Your task to perform on an android device: Empty the shopping cart on amazon. Add "razer blade" to the cart on amazon, then select checkout. Image 0: 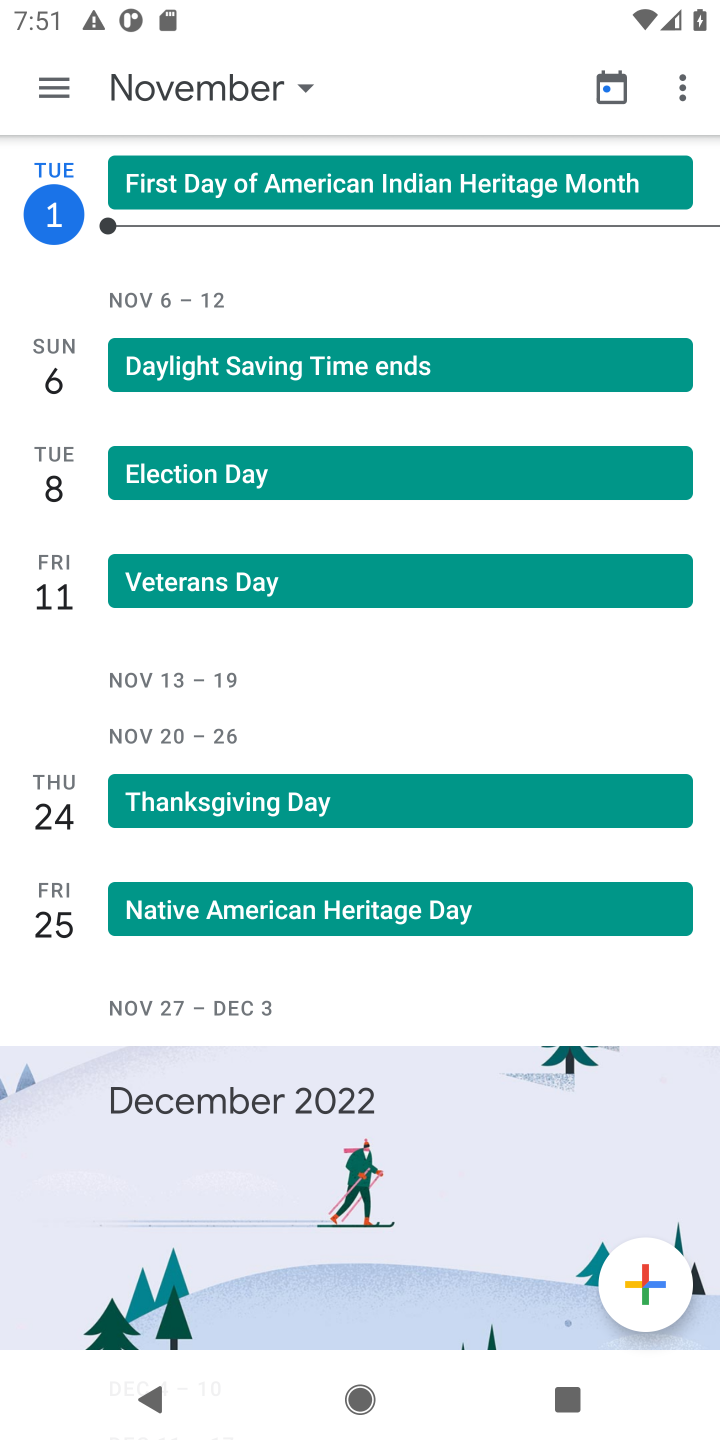
Step 0: press home button
Your task to perform on an android device: Empty the shopping cart on amazon. Add "razer blade" to the cart on amazon, then select checkout. Image 1: 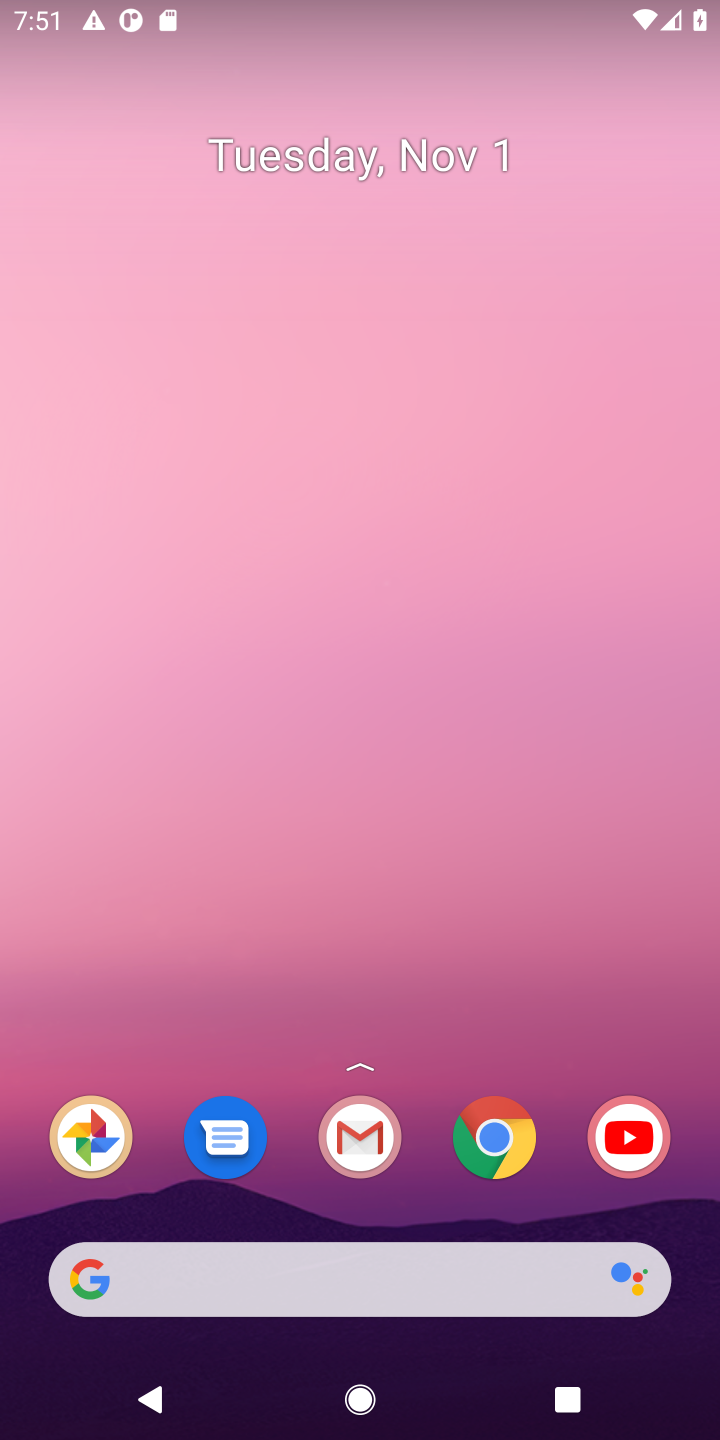
Step 1: click (492, 1113)
Your task to perform on an android device: Empty the shopping cart on amazon. Add "razer blade" to the cart on amazon, then select checkout. Image 2: 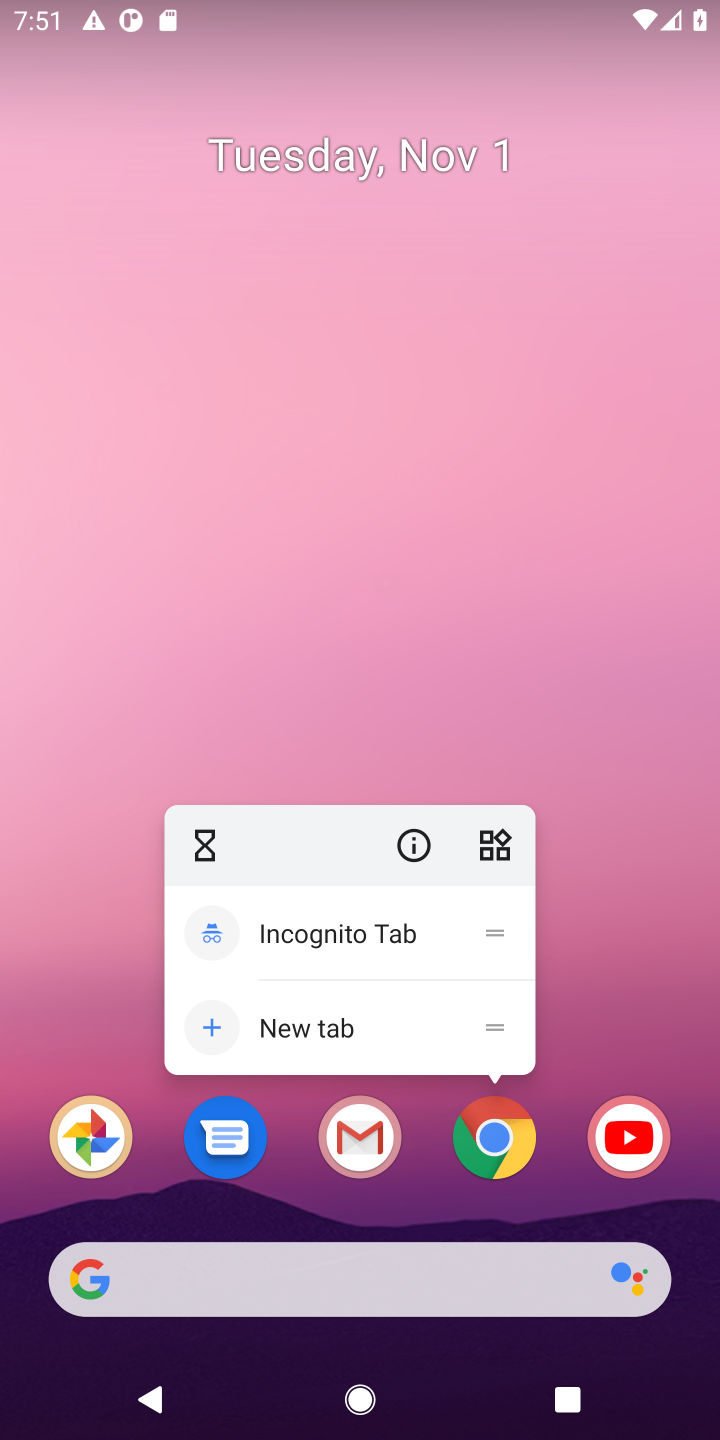
Step 2: click (492, 1113)
Your task to perform on an android device: Empty the shopping cart on amazon. Add "razer blade" to the cart on amazon, then select checkout. Image 3: 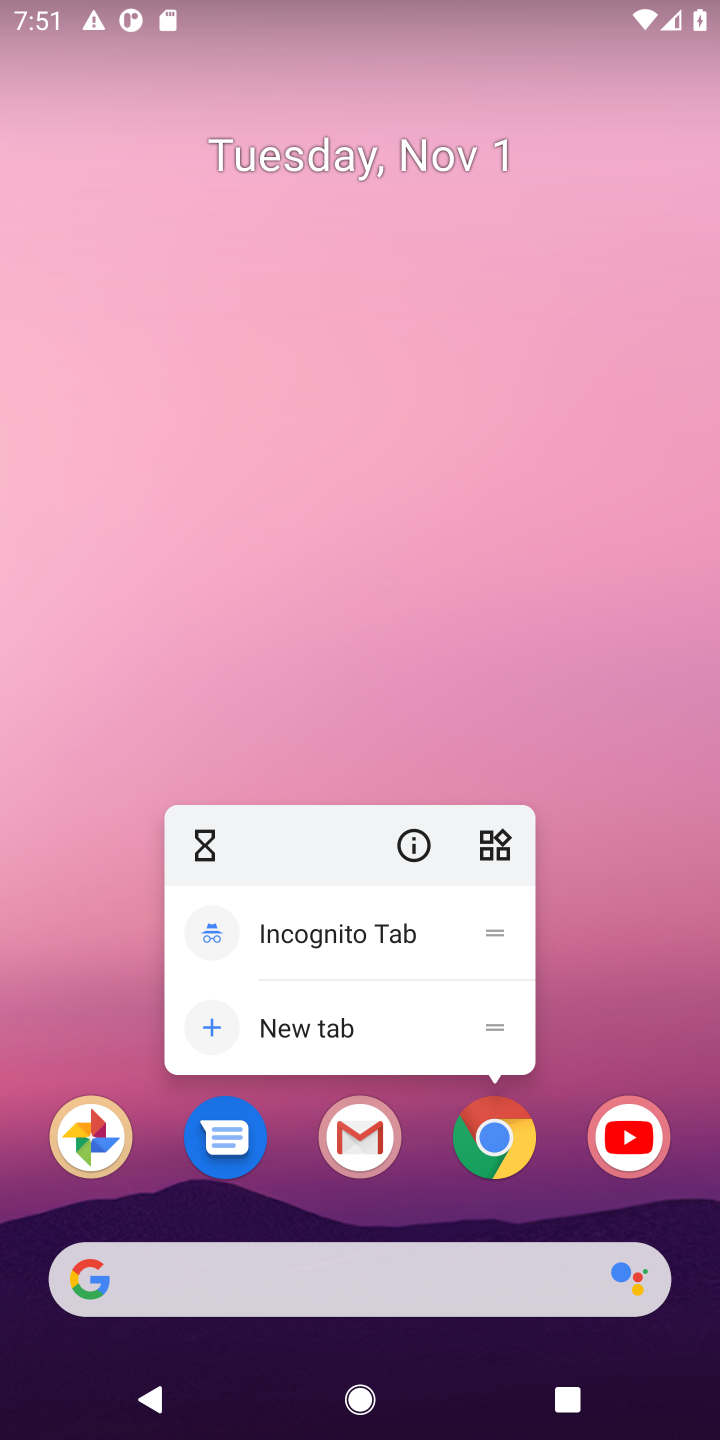
Step 3: click (492, 1113)
Your task to perform on an android device: Empty the shopping cart on amazon. Add "razer blade" to the cart on amazon, then select checkout. Image 4: 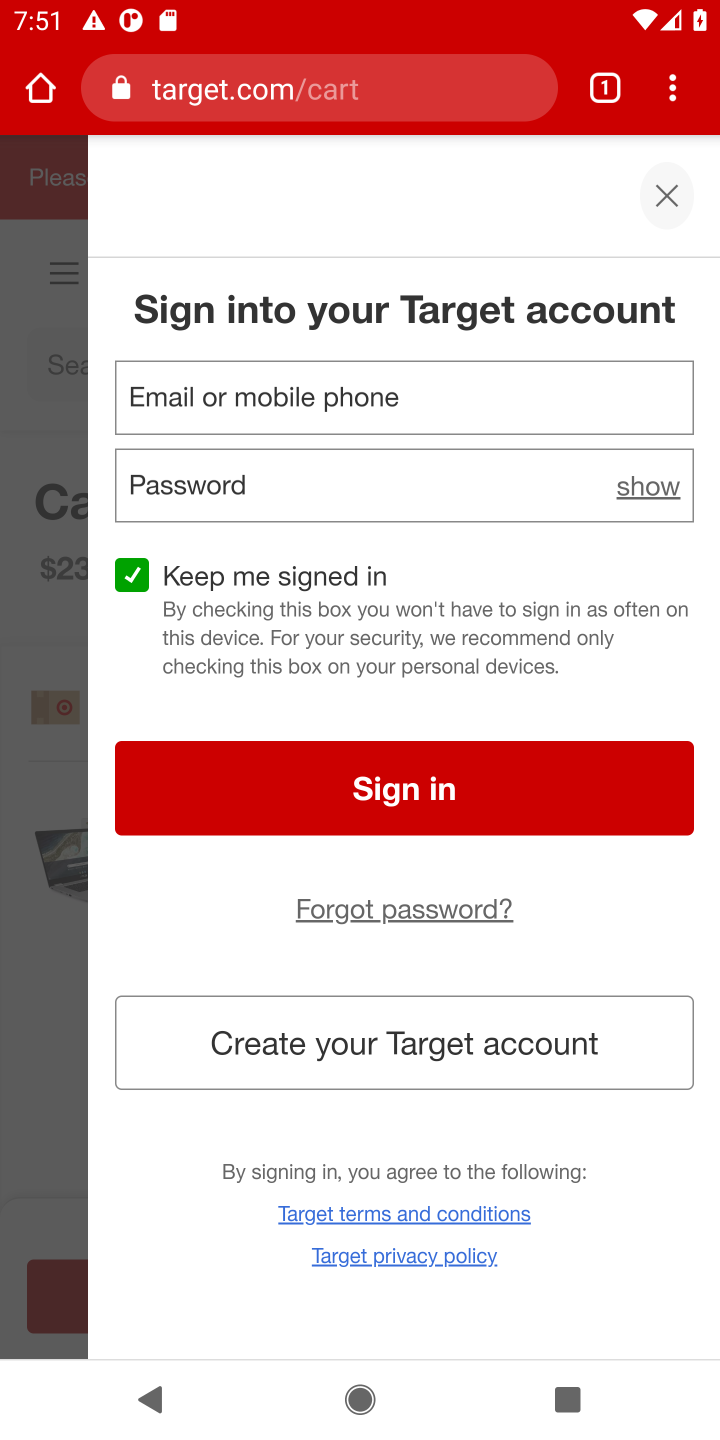
Step 4: click (378, 78)
Your task to perform on an android device: Empty the shopping cart on amazon. Add "razer blade" to the cart on amazon, then select checkout. Image 5: 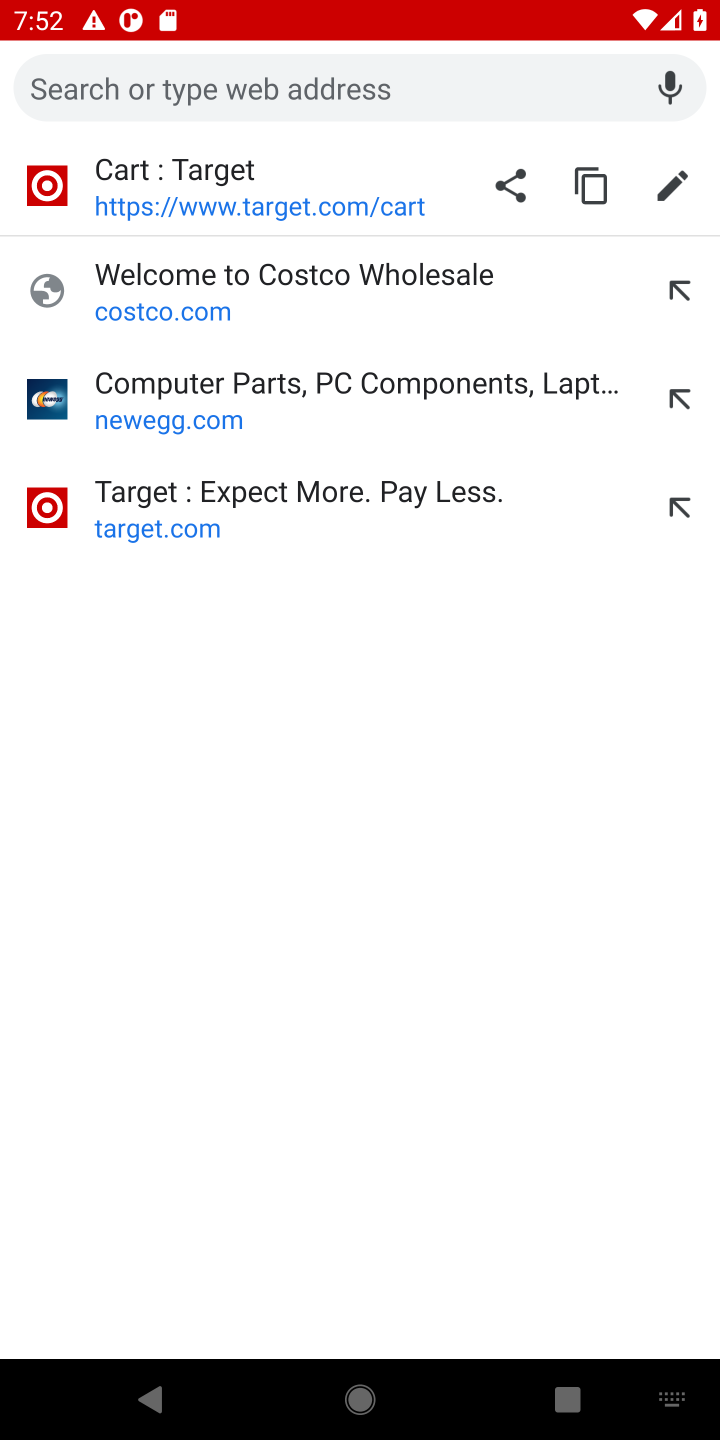
Step 5: type "amazon"
Your task to perform on an android device: Empty the shopping cart on amazon. Add "razer blade" to the cart on amazon, then select checkout. Image 6: 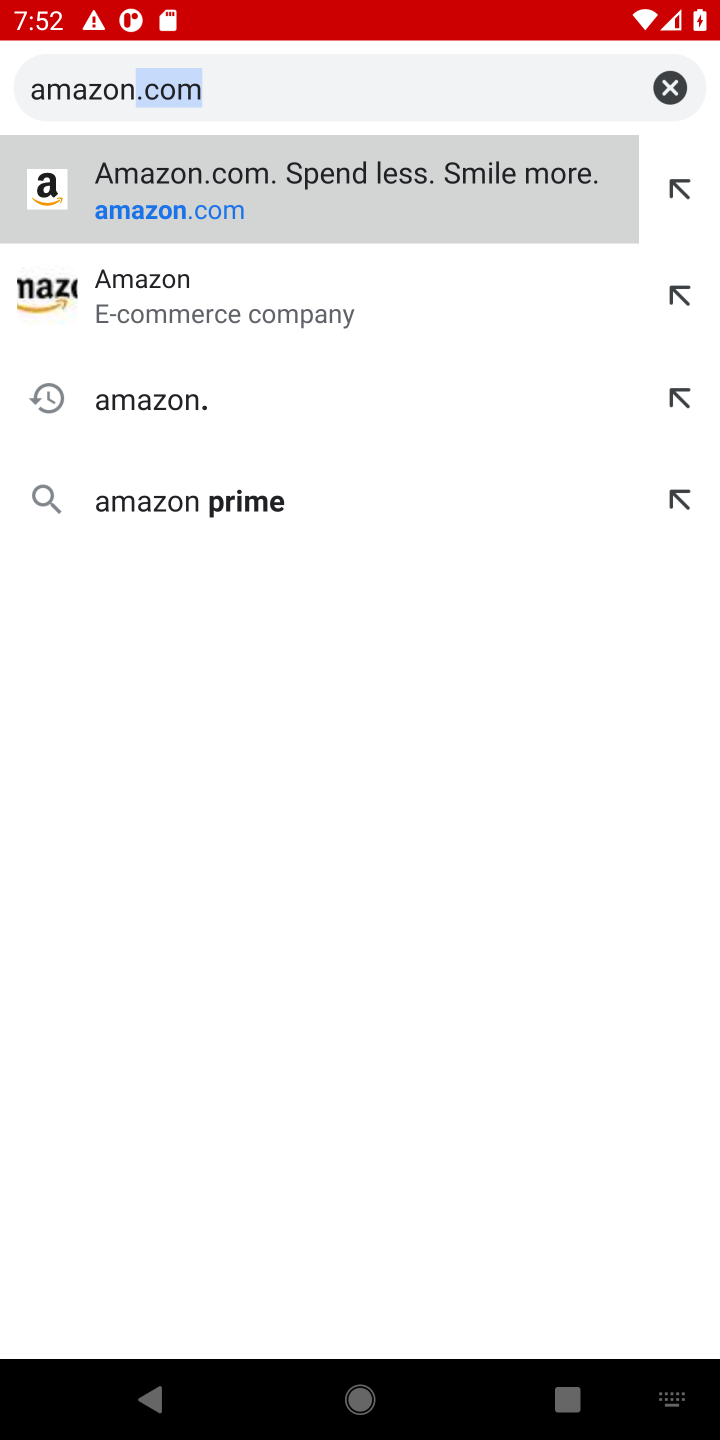
Step 6: click (445, 172)
Your task to perform on an android device: Empty the shopping cart on amazon. Add "razer blade" to the cart on amazon, then select checkout. Image 7: 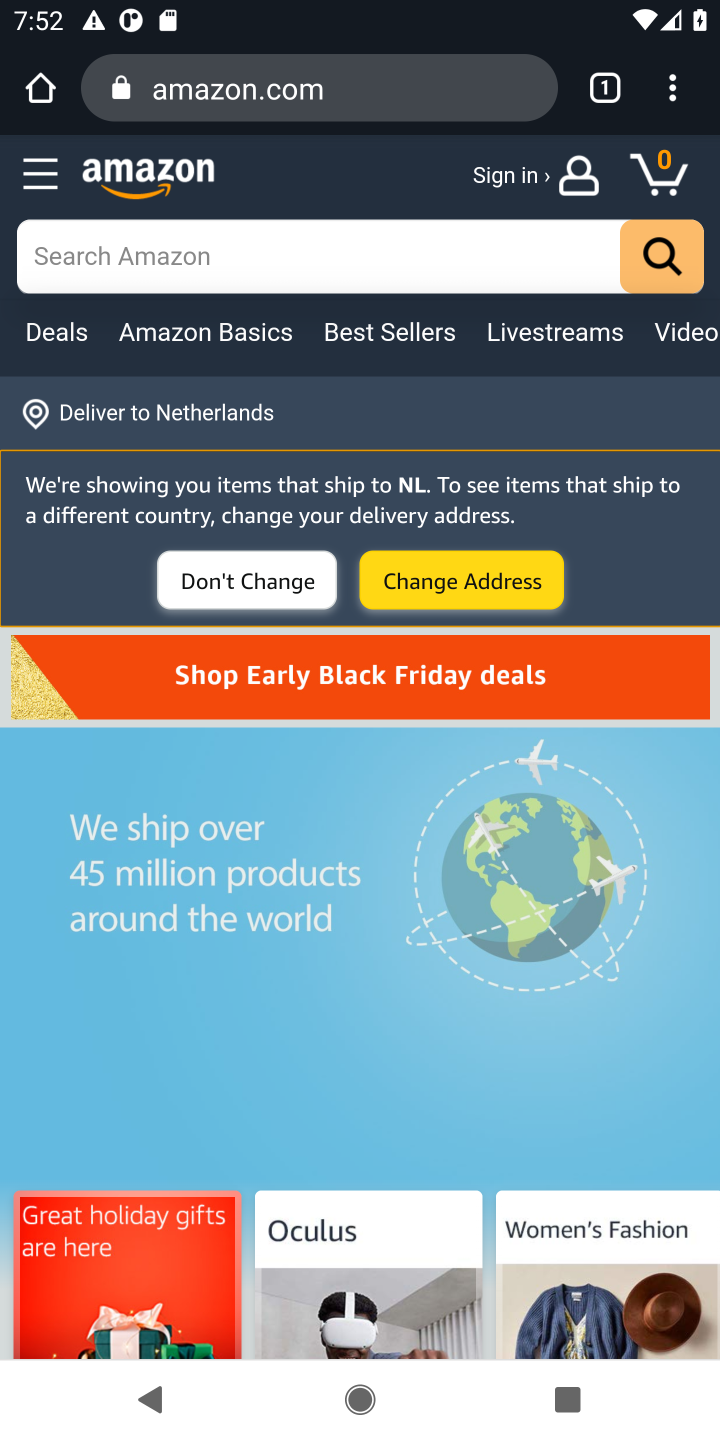
Step 7: click (391, 271)
Your task to perform on an android device: Empty the shopping cart on amazon. Add "razer blade" to the cart on amazon, then select checkout. Image 8: 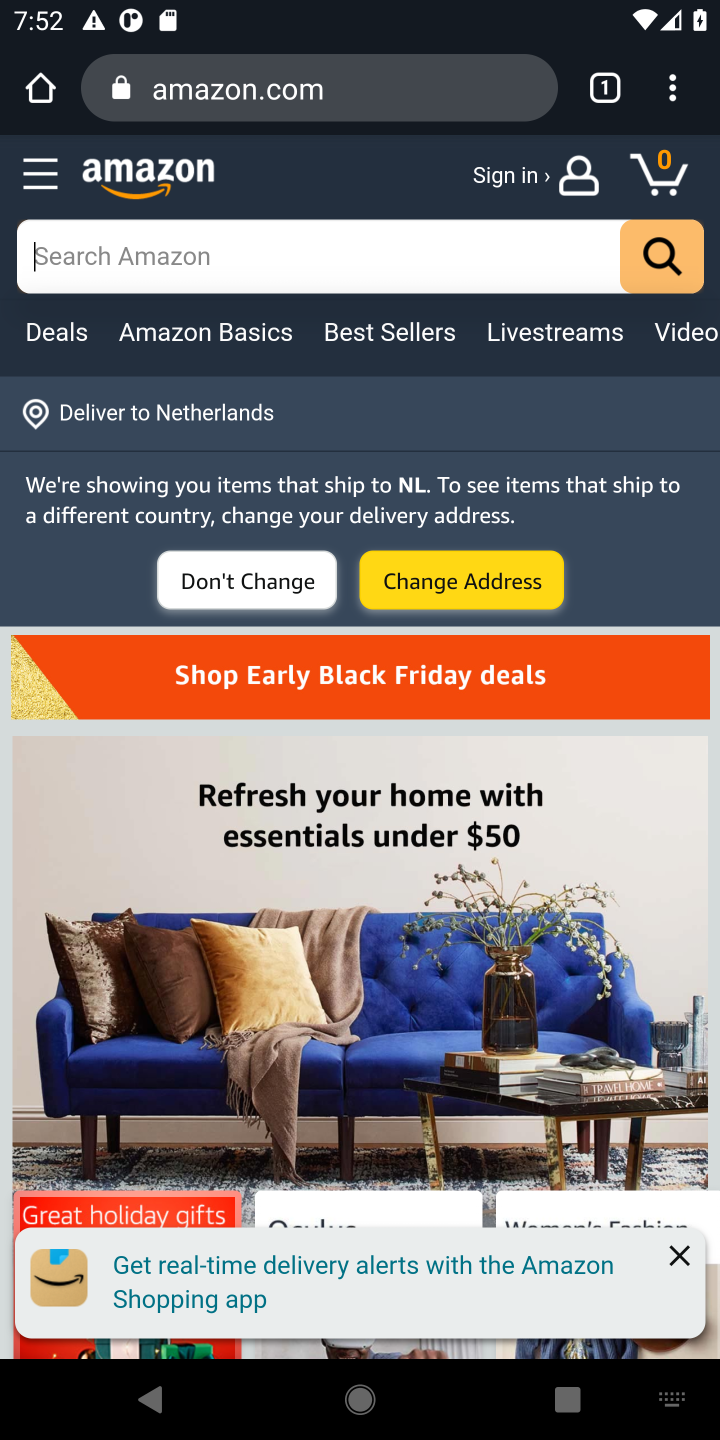
Step 8: type "razer blade"
Your task to perform on an android device: Empty the shopping cart on amazon. Add "razer blade" to the cart on amazon, then select checkout. Image 9: 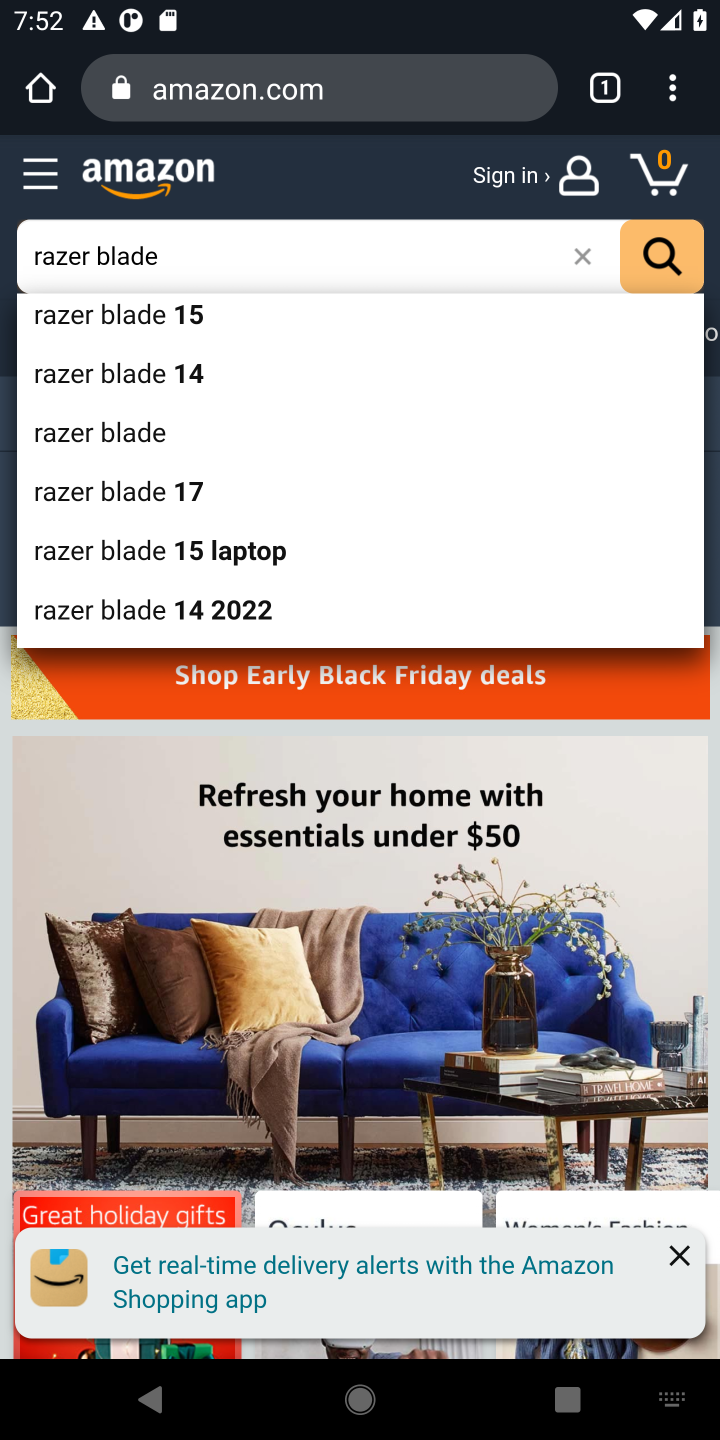
Step 9: press enter
Your task to perform on an android device: Empty the shopping cart on amazon. Add "razer blade" to the cart on amazon, then select checkout. Image 10: 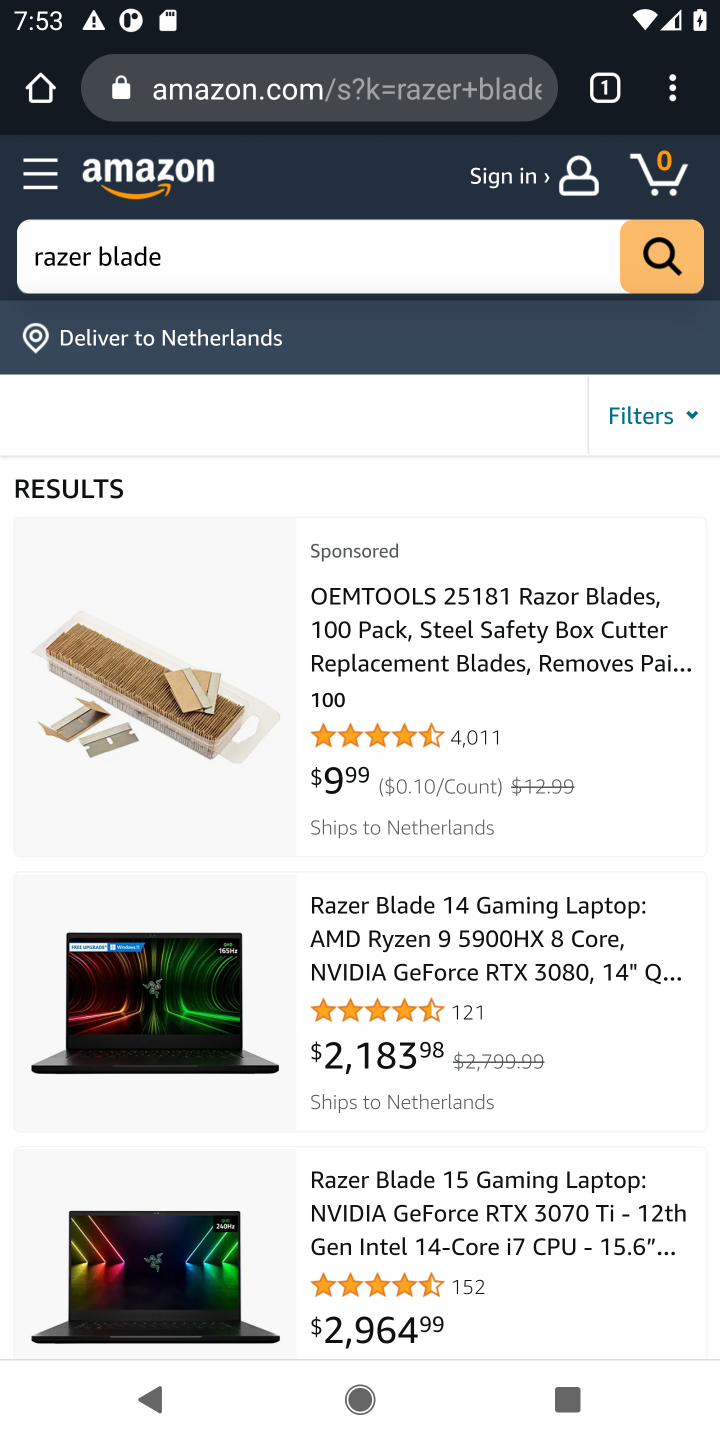
Step 10: click (187, 654)
Your task to perform on an android device: Empty the shopping cart on amazon. Add "razer blade" to the cart on amazon, then select checkout. Image 11: 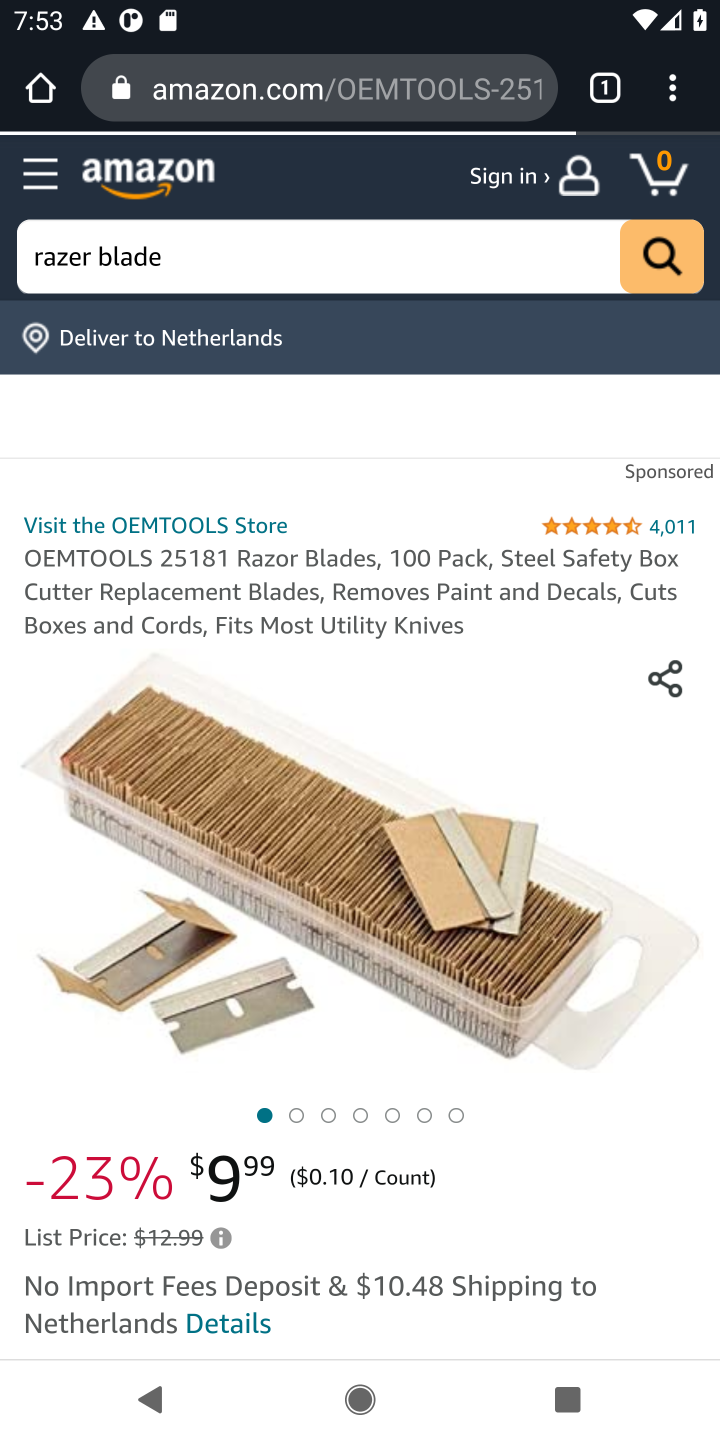
Step 11: drag from (539, 1202) to (500, 422)
Your task to perform on an android device: Empty the shopping cart on amazon. Add "razer blade" to the cart on amazon, then select checkout. Image 12: 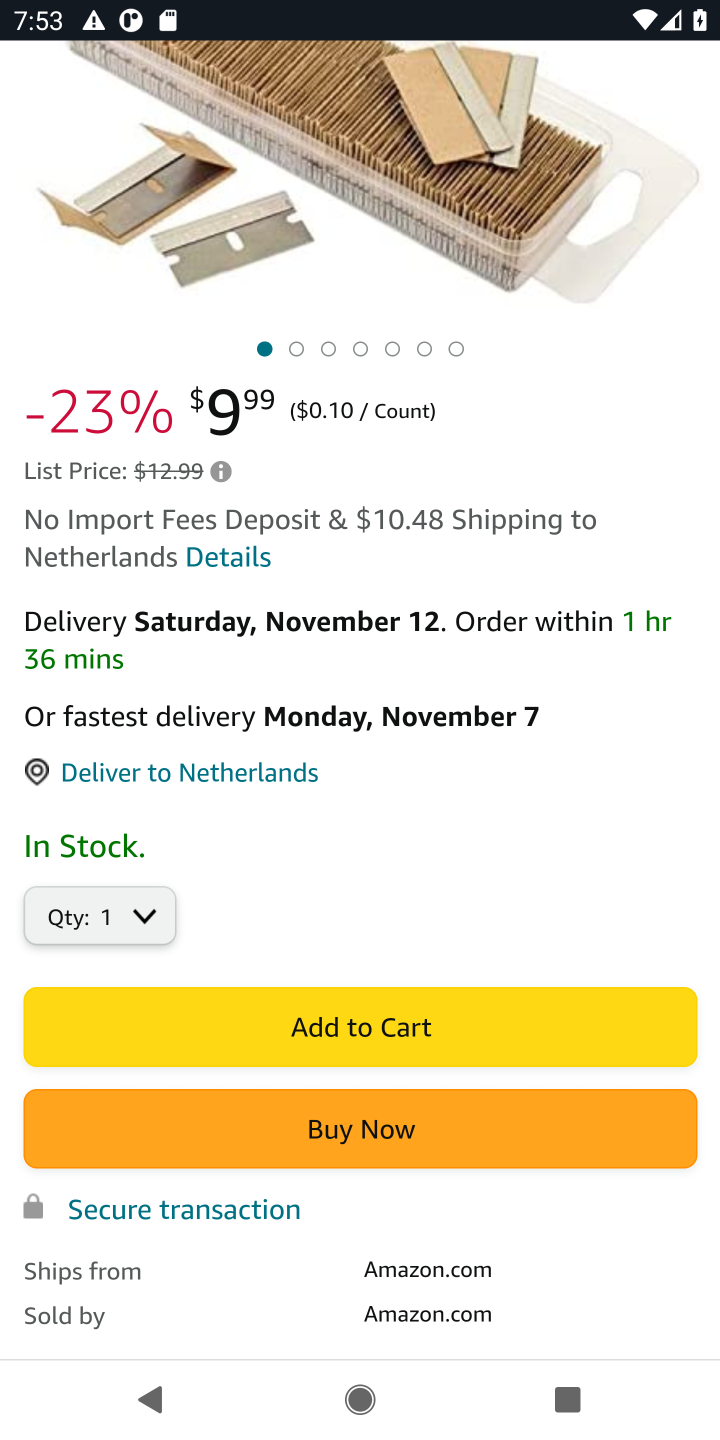
Step 12: click (362, 1040)
Your task to perform on an android device: Empty the shopping cart on amazon. Add "razer blade" to the cart on amazon, then select checkout. Image 13: 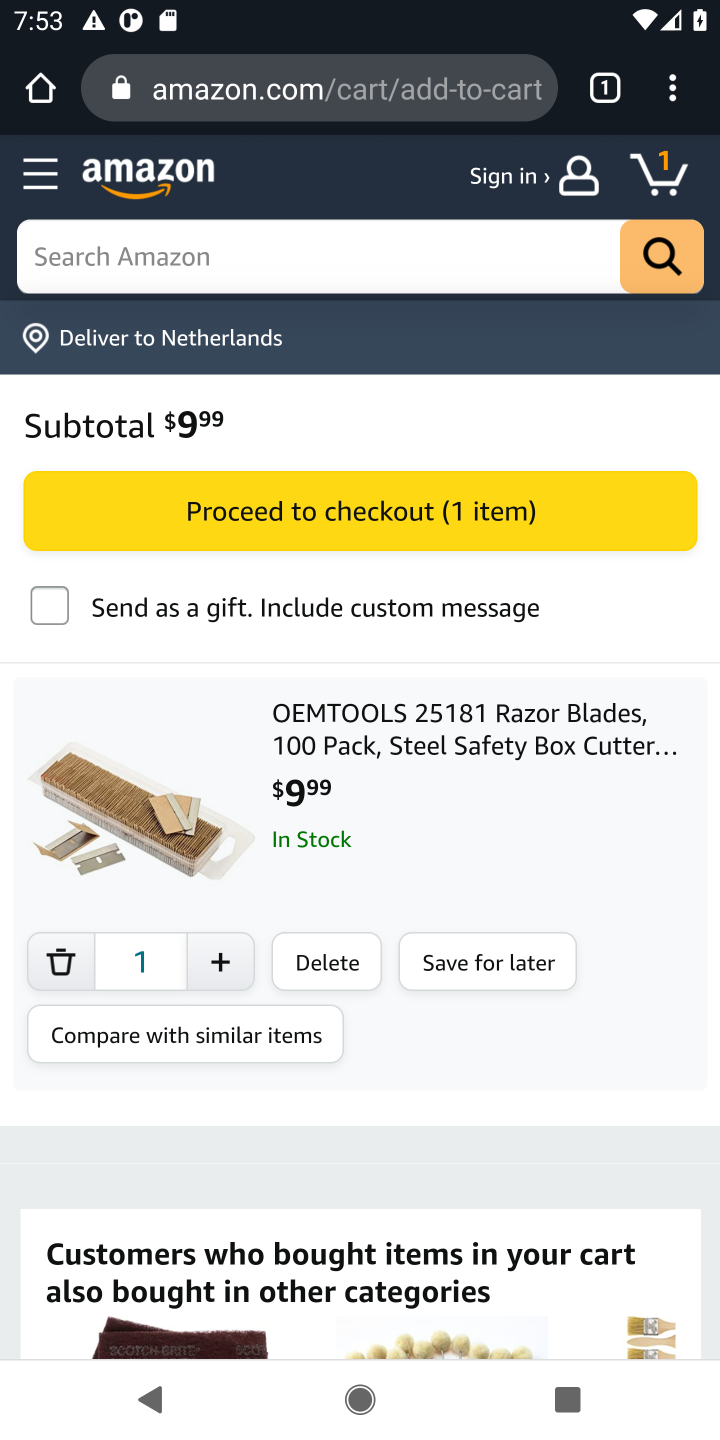
Step 13: click (522, 523)
Your task to perform on an android device: Empty the shopping cart on amazon. Add "razer blade" to the cart on amazon, then select checkout. Image 14: 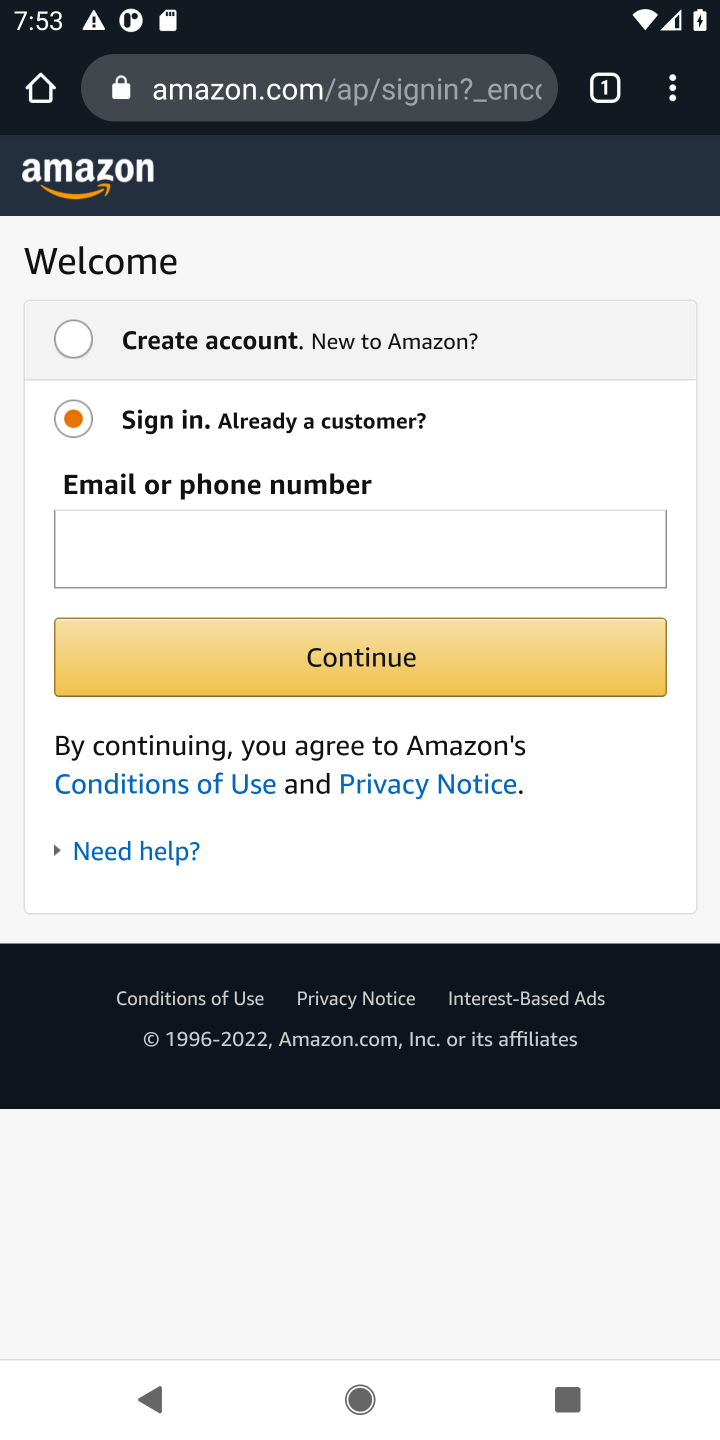
Step 14: task complete